Your task to perform on an android device: Find coffee shops on Maps Image 0: 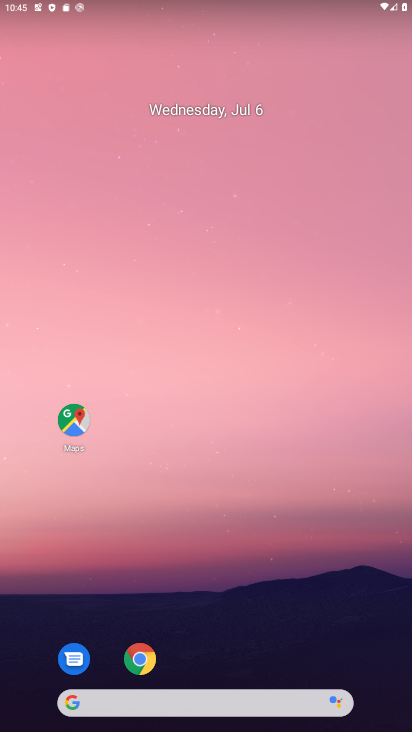
Step 0: click (76, 425)
Your task to perform on an android device: Find coffee shops on Maps Image 1: 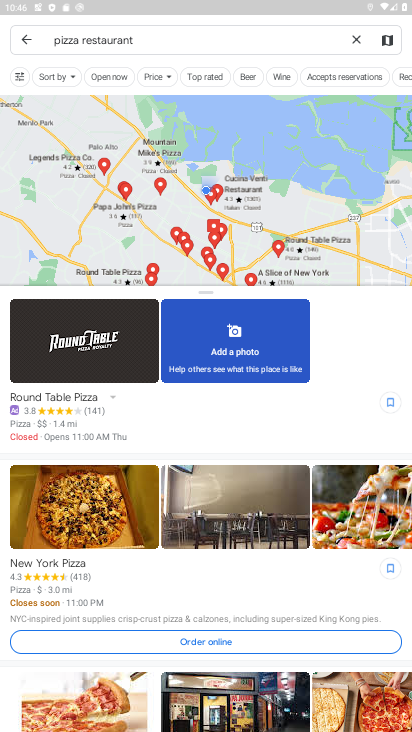
Step 1: click (161, 37)
Your task to perform on an android device: Find coffee shops on Maps Image 2: 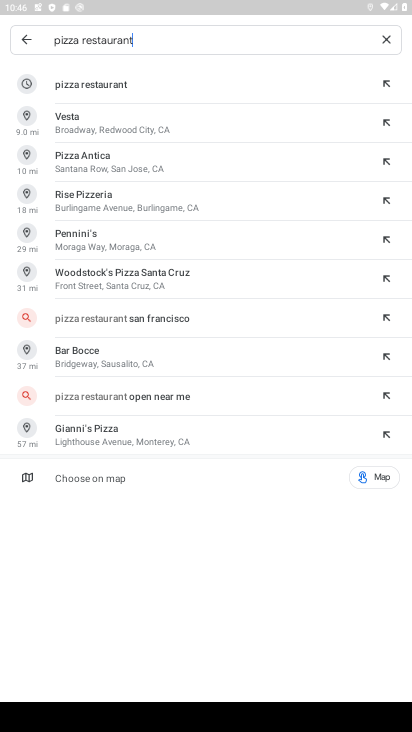
Step 2: click (388, 42)
Your task to perform on an android device: Find coffee shops on Maps Image 3: 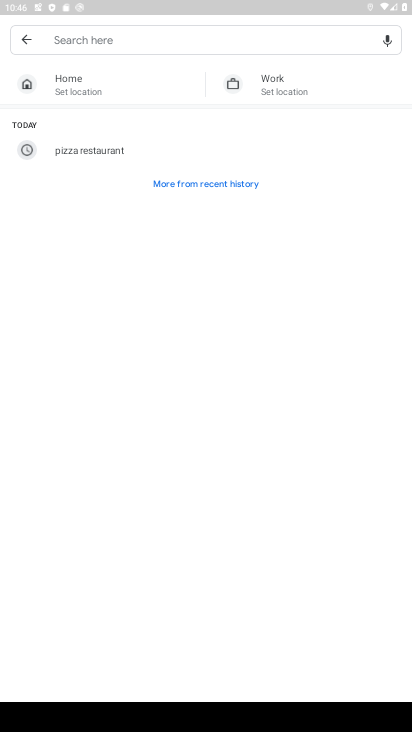
Step 3: type "coffee shops"
Your task to perform on an android device: Find coffee shops on Maps Image 4: 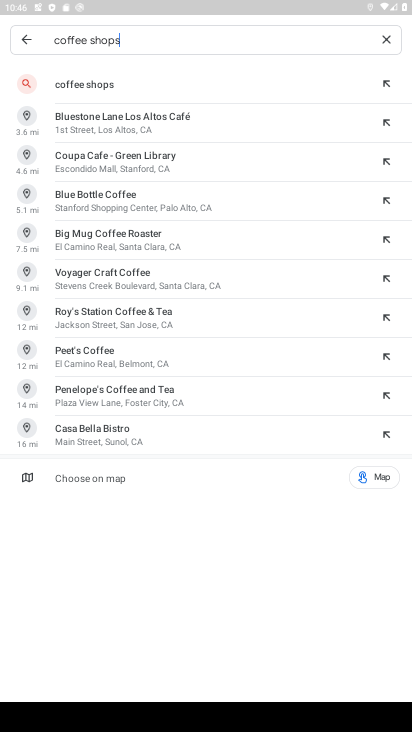
Step 4: click (112, 83)
Your task to perform on an android device: Find coffee shops on Maps Image 5: 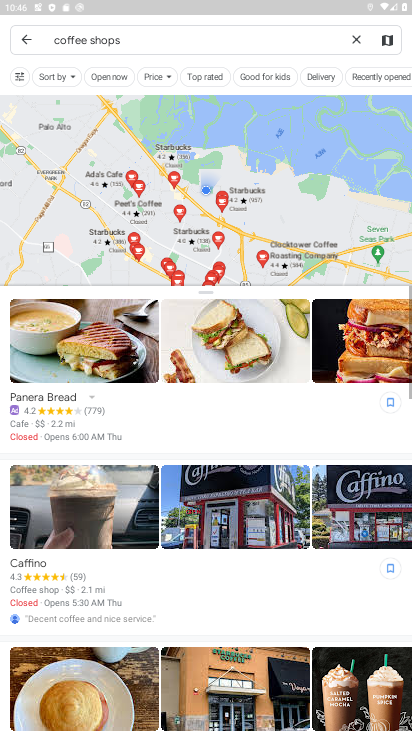
Step 5: task complete